Your task to perform on an android device: What's the news in Uruguay? Image 0: 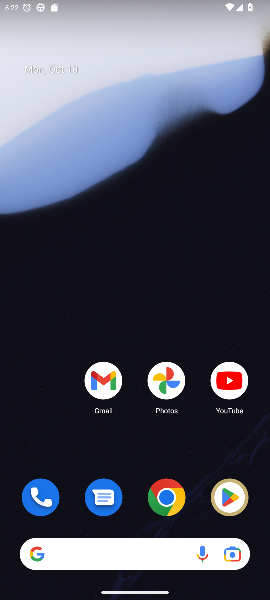
Step 0: drag from (138, 448) to (141, 266)
Your task to perform on an android device: What's the news in Uruguay? Image 1: 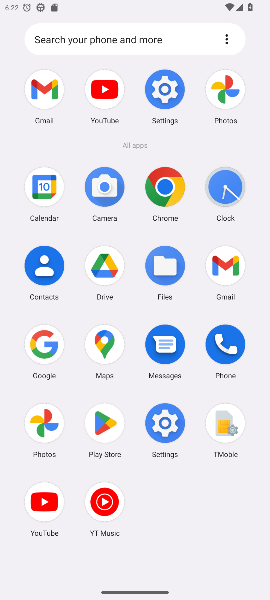
Step 1: click (46, 338)
Your task to perform on an android device: What's the news in Uruguay? Image 2: 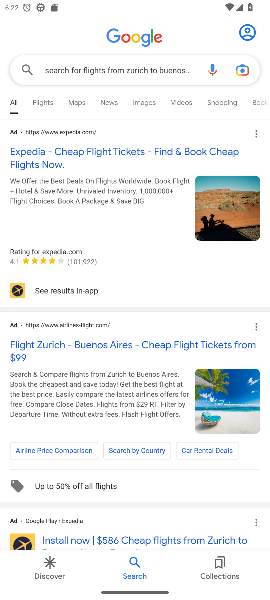
Step 2: click (172, 65)
Your task to perform on an android device: What's the news in Uruguay? Image 3: 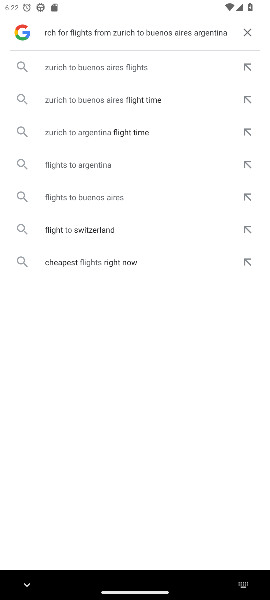
Step 3: click (243, 30)
Your task to perform on an android device: What's the news in Uruguay? Image 4: 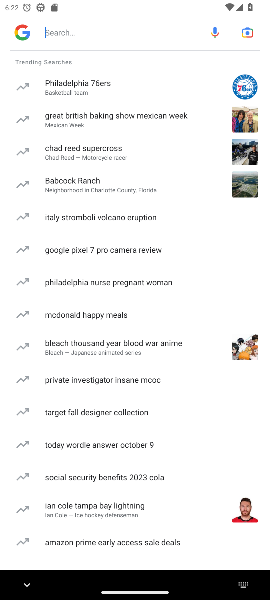
Step 4: click (111, 35)
Your task to perform on an android device: What's the news in Uruguay? Image 5: 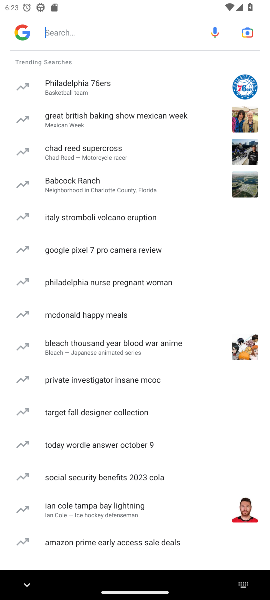
Step 5: type "What's the news in Uruguay "
Your task to perform on an android device: What's the news in Uruguay? Image 6: 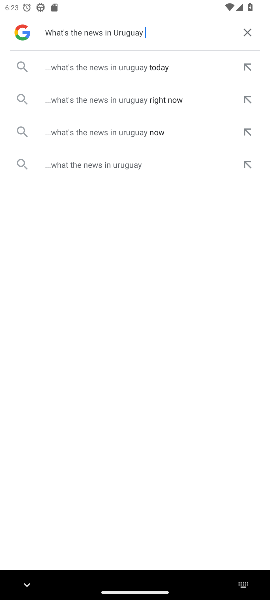
Step 6: click (120, 73)
Your task to perform on an android device: What's the news in Uruguay? Image 7: 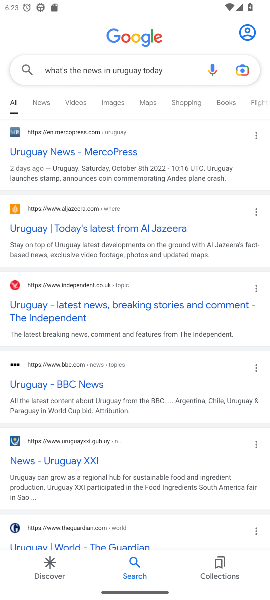
Step 7: click (63, 156)
Your task to perform on an android device: What's the news in Uruguay? Image 8: 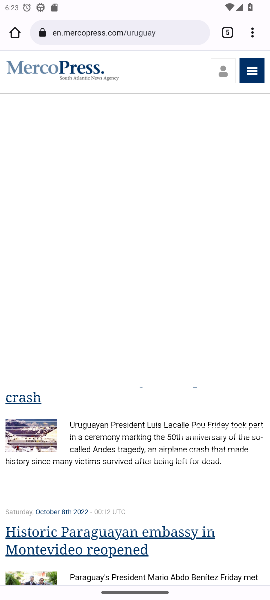
Step 8: task complete